Your task to perform on an android device: Is it going to rain today? Image 0: 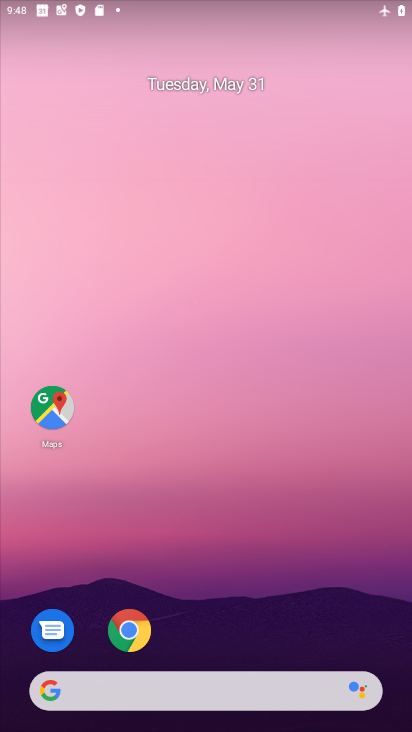
Step 0: click (138, 620)
Your task to perform on an android device: Is it going to rain today? Image 1: 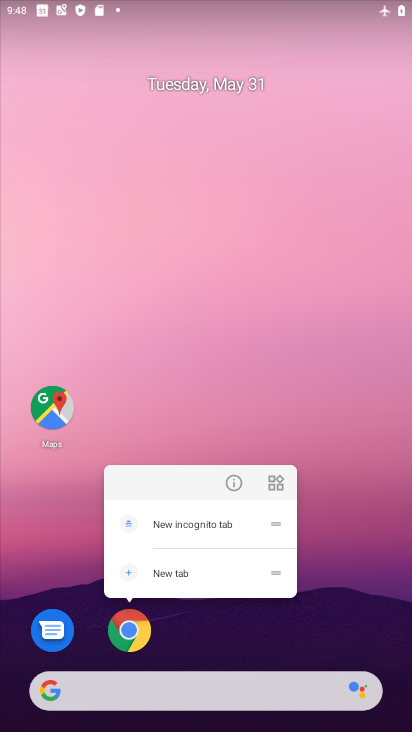
Step 1: click (303, 190)
Your task to perform on an android device: Is it going to rain today? Image 2: 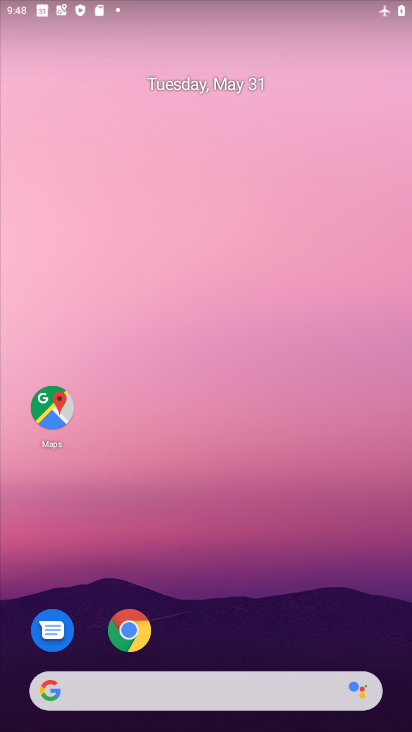
Step 2: click (126, 632)
Your task to perform on an android device: Is it going to rain today? Image 3: 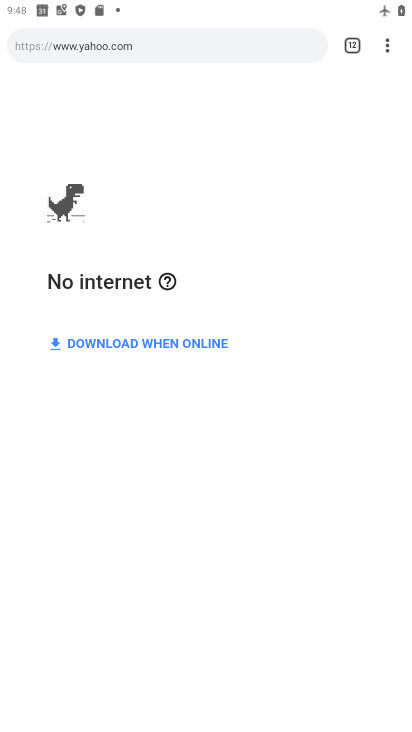
Step 3: click (215, 38)
Your task to perform on an android device: Is it going to rain today? Image 4: 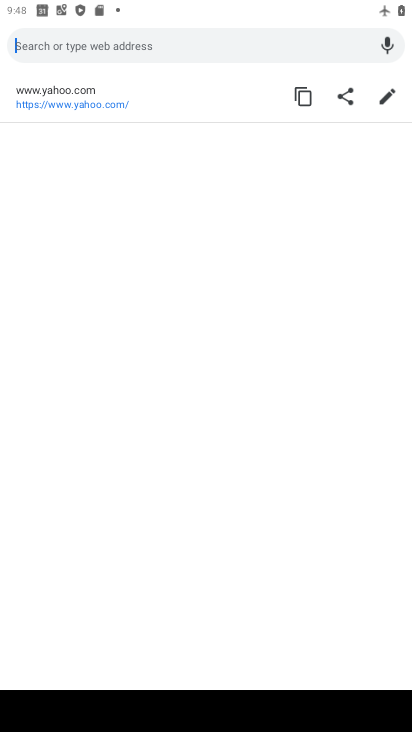
Step 4: click (246, 41)
Your task to perform on an android device: Is it going to rain today? Image 5: 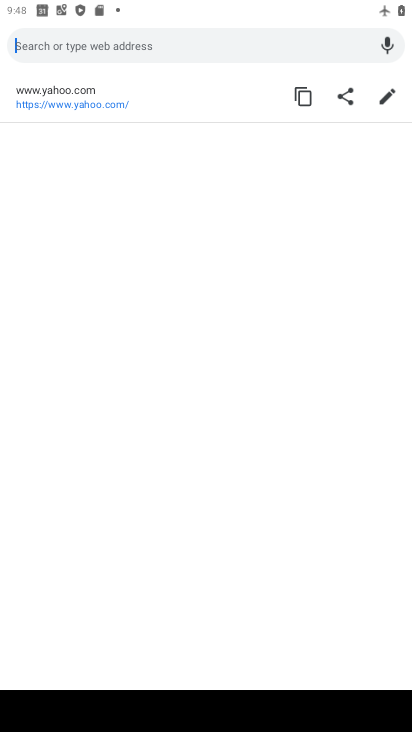
Step 5: type "Is it going to rain today?"
Your task to perform on an android device: Is it going to rain today? Image 6: 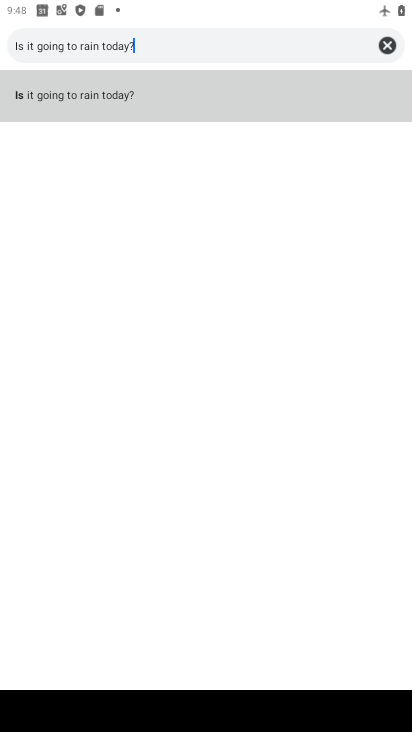
Step 6: click (128, 92)
Your task to perform on an android device: Is it going to rain today? Image 7: 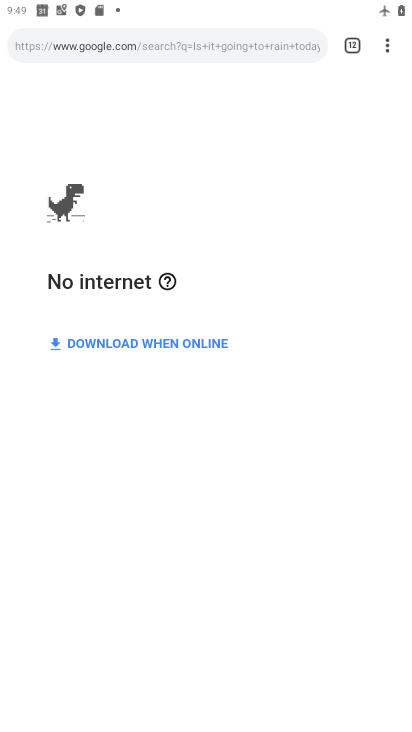
Step 7: task complete